Your task to perform on an android device: see tabs open on other devices in the chrome app Image 0: 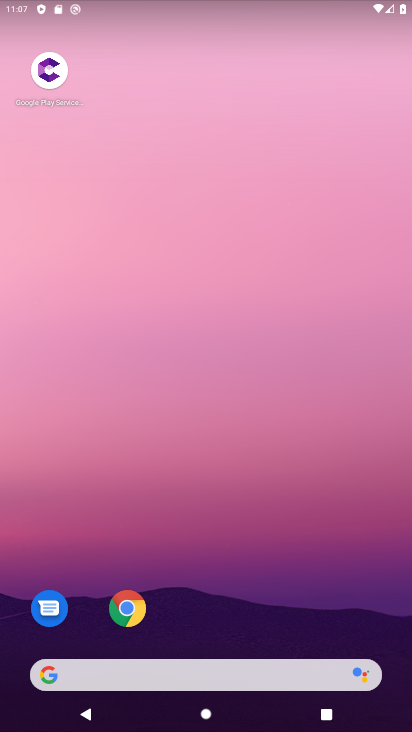
Step 0: click (128, 611)
Your task to perform on an android device: see tabs open on other devices in the chrome app Image 1: 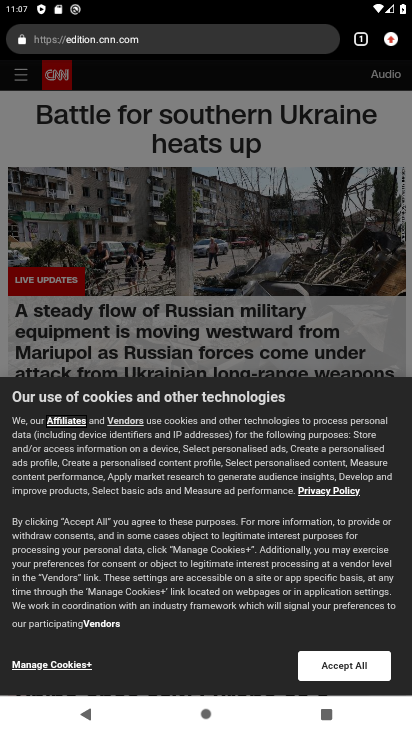
Step 1: click (393, 31)
Your task to perform on an android device: see tabs open on other devices in the chrome app Image 2: 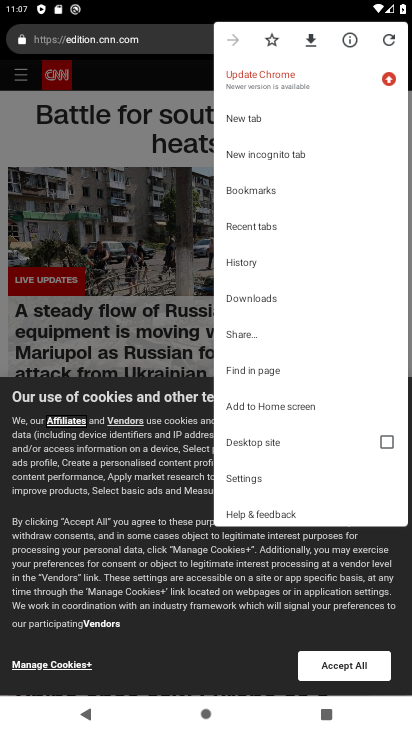
Step 2: click (246, 229)
Your task to perform on an android device: see tabs open on other devices in the chrome app Image 3: 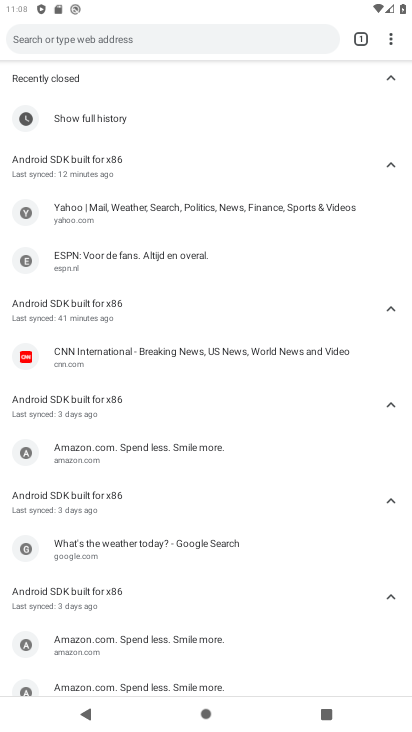
Step 3: task complete